Your task to perform on an android device: Open accessibility settings Image 0: 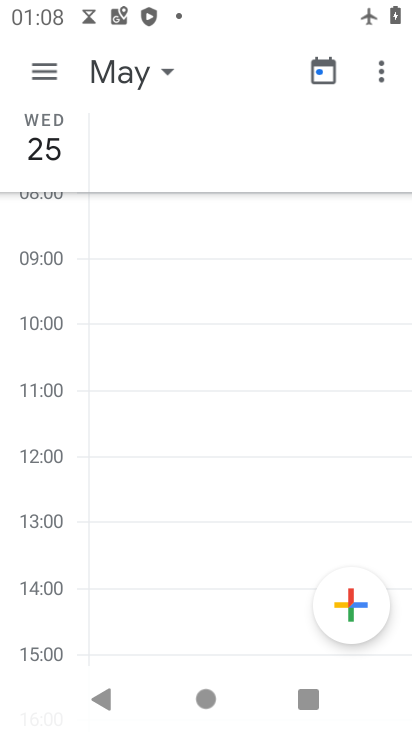
Step 0: press home button
Your task to perform on an android device: Open accessibility settings Image 1: 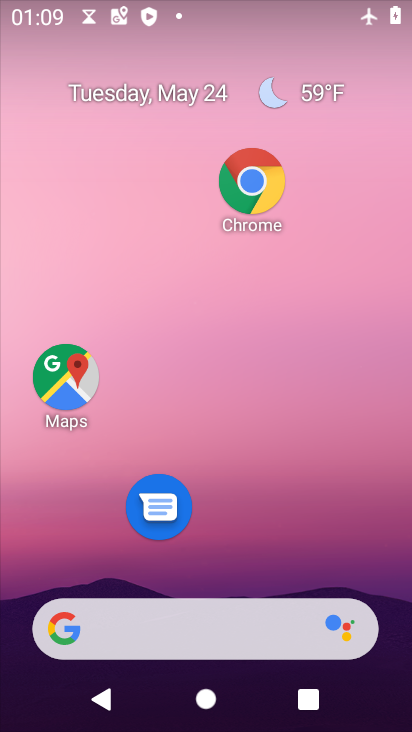
Step 1: drag from (244, 517) to (322, 244)
Your task to perform on an android device: Open accessibility settings Image 2: 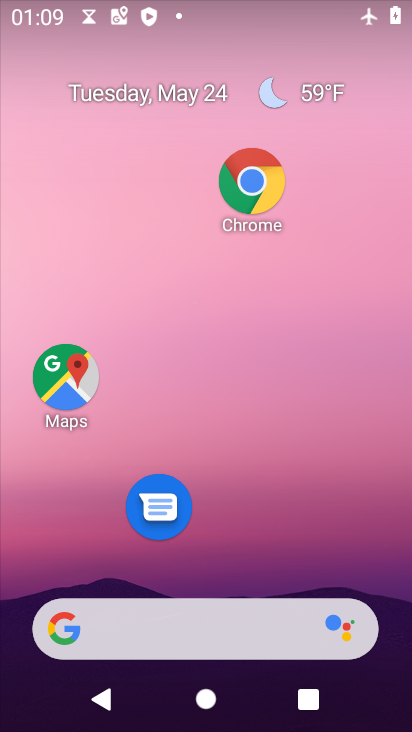
Step 2: click (343, 221)
Your task to perform on an android device: Open accessibility settings Image 3: 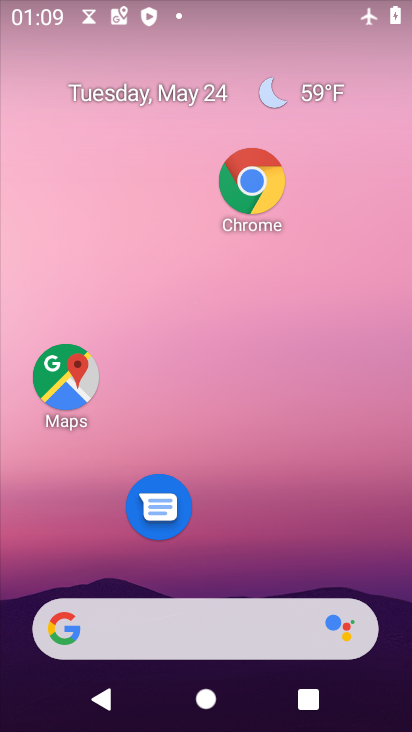
Step 3: drag from (273, 407) to (283, 221)
Your task to perform on an android device: Open accessibility settings Image 4: 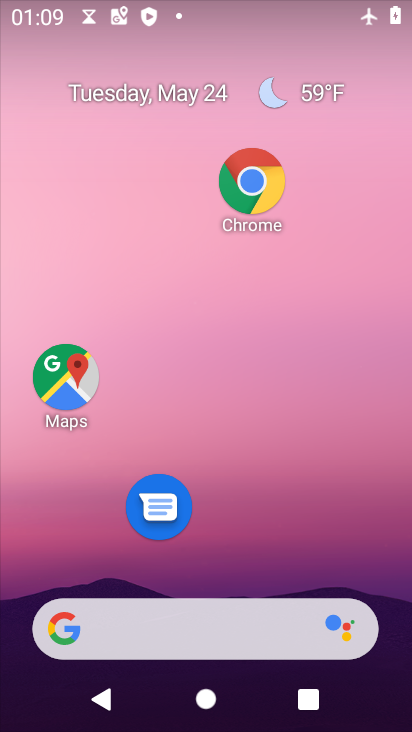
Step 4: drag from (227, 602) to (279, 172)
Your task to perform on an android device: Open accessibility settings Image 5: 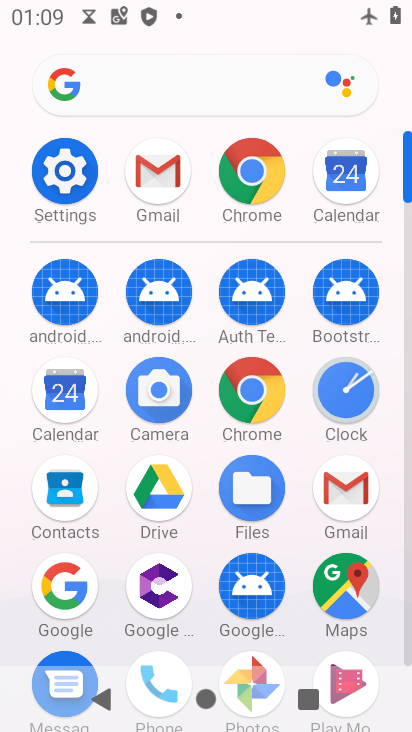
Step 5: click (80, 164)
Your task to perform on an android device: Open accessibility settings Image 6: 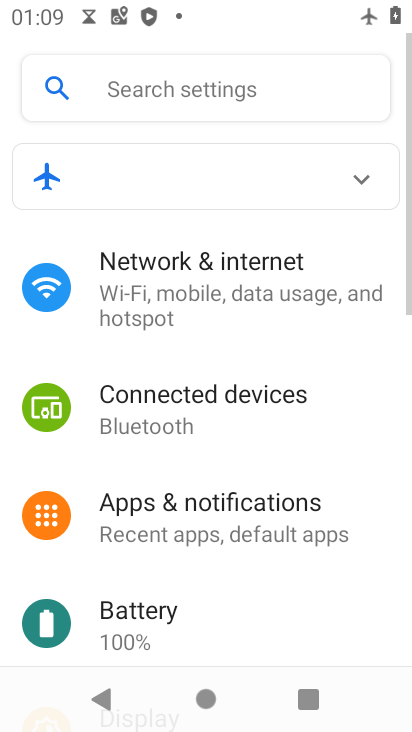
Step 6: drag from (230, 556) to (288, 172)
Your task to perform on an android device: Open accessibility settings Image 7: 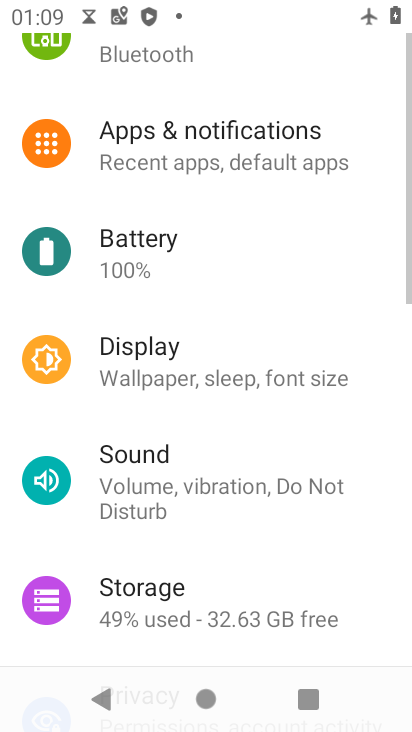
Step 7: drag from (265, 602) to (319, 170)
Your task to perform on an android device: Open accessibility settings Image 8: 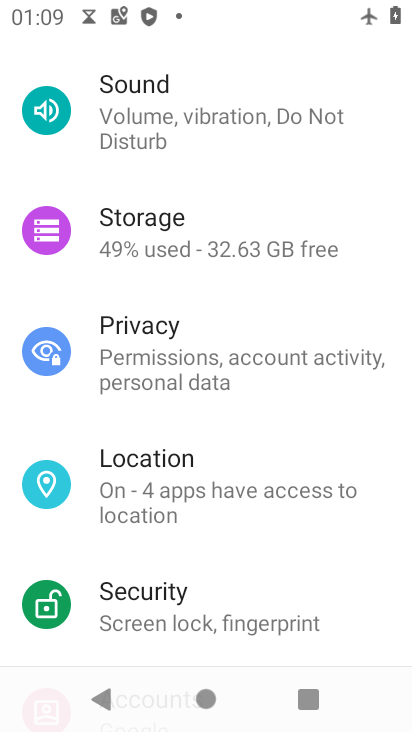
Step 8: drag from (213, 601) to (263, 118)
Your task to perform on an android device: Open accessibility settings Image 9: 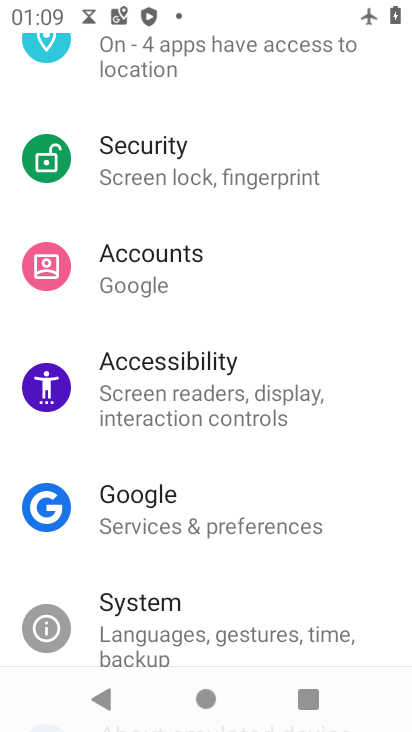
Step 9: click (178, 339)
Your task to perform on an android device: Open accessibility settings Image 10: 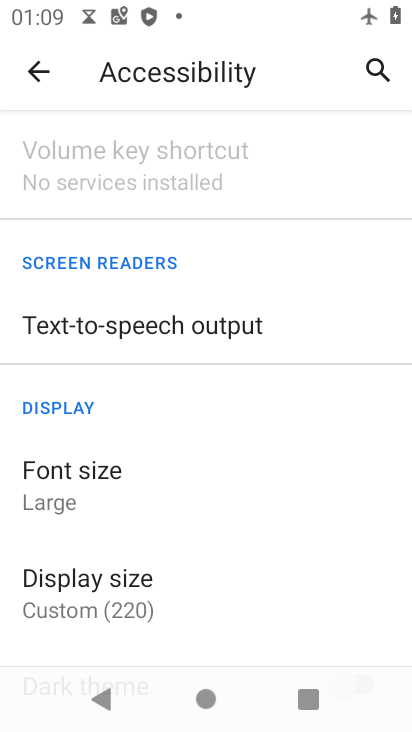
Step 10: task complete